Your task to perform on an android device: Open Google Chrome and click the shortcut for Amazon.com Image 0: 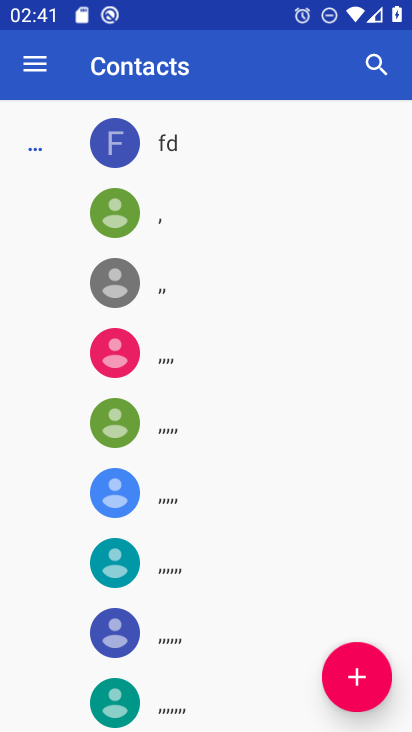
Step 0: press home button
Your task to perform on an android device: Open Google Chrome and click the shortcut for Amazon.com Image 1: 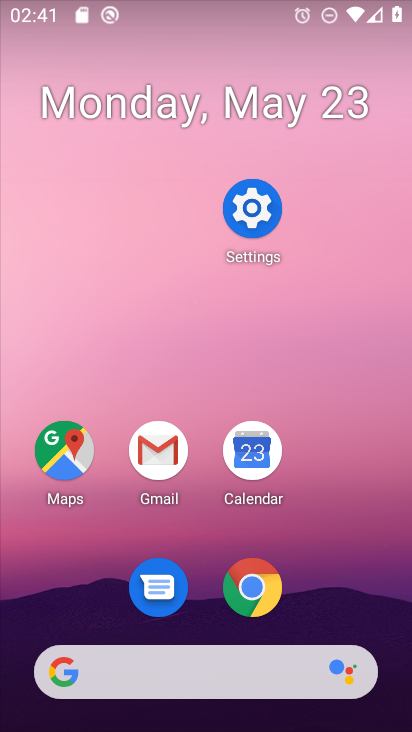
Step 1: click (271, 581)
Your task to perform on an android device: Open Google Chrome and click the shortcut for Amazon.com Image 2: 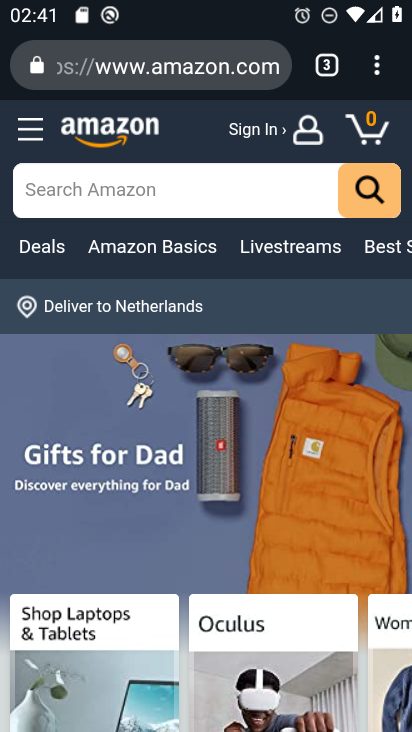
Step 2: task complete